Your task to perform on an android device: find photos in the google photos app Image 0: 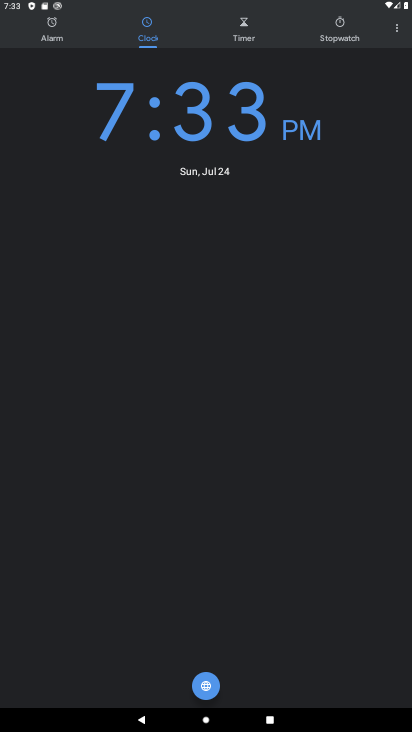
Step 0: press back button
Your task to perform on an android device: find photos in the google photos app Image 1: 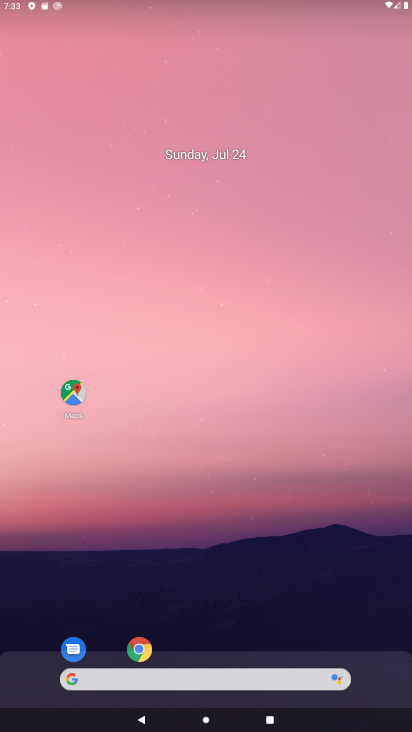
Step 1: drag from (241, 667) to (146, 148)
Your task to perform on an android device: find photos in the google photos app Image 2: 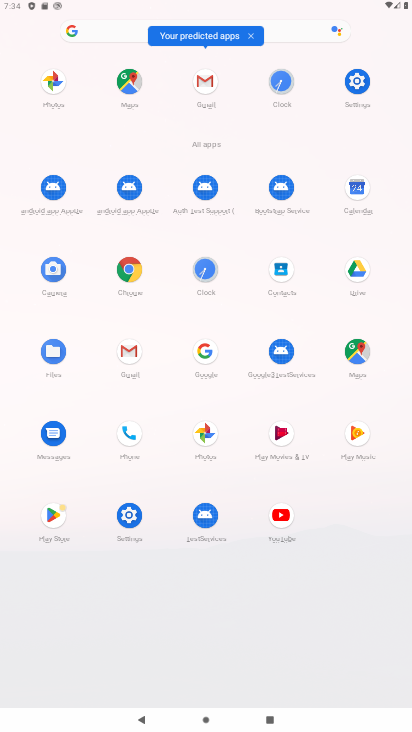
Step 2: click (206, 433)
Your task to perform on an android device: find photos in the google photos app Image 3: 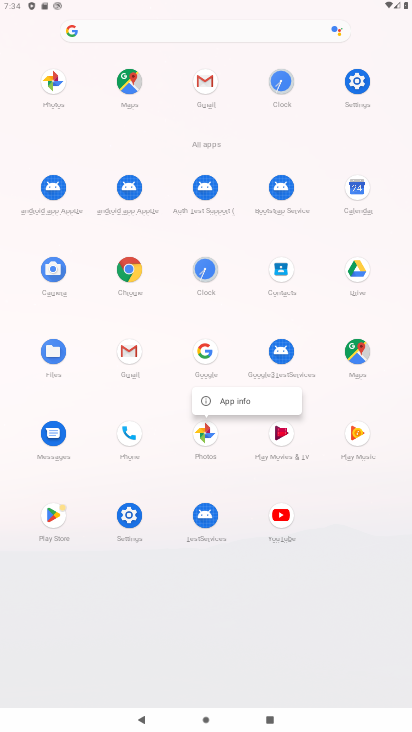
Step 3: click (205, 434)
Your task to perform on an android device: find photos in the google photos app Image 4: 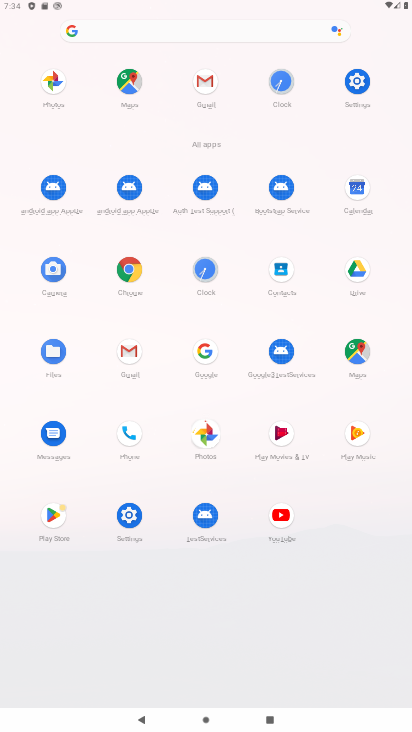
Step 4: click (203, 436)
Your task to perform on an android device: find photos in the google photos app Image 5: 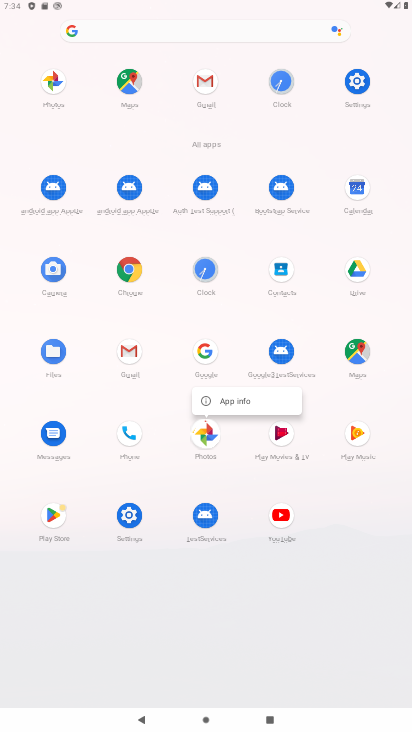
Step 5: click (200, 432)
Your task to perform on an android device: find photos in the google photos app Image 6: 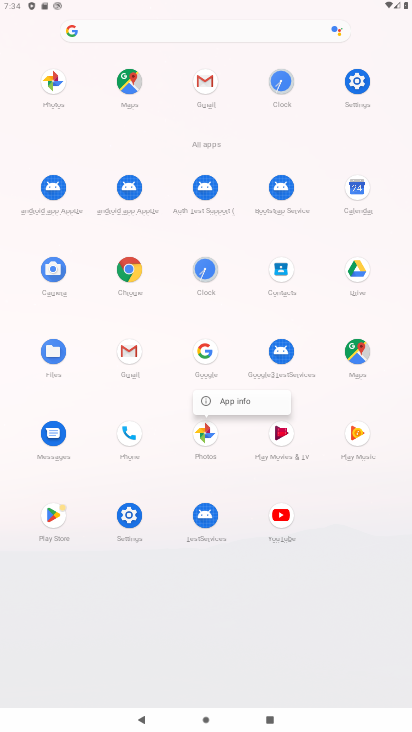
Step 6: click (197, 435)
Your task to perform on an android device: find photos in the google photos app Image 7: 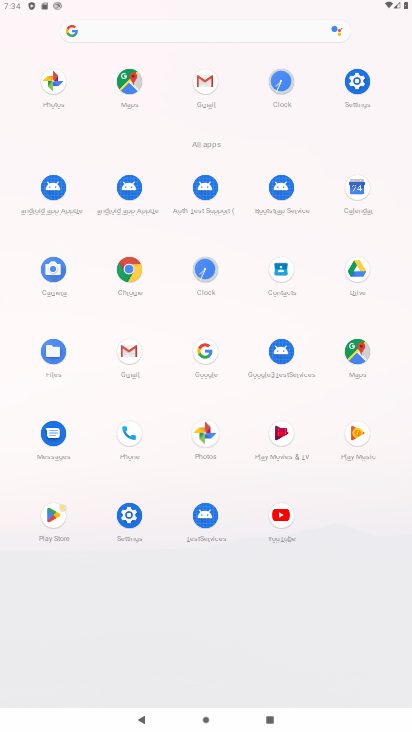
Step 7: click (198, 434)
Your task to perform on an android device: find photos in the google photos app Image 8: 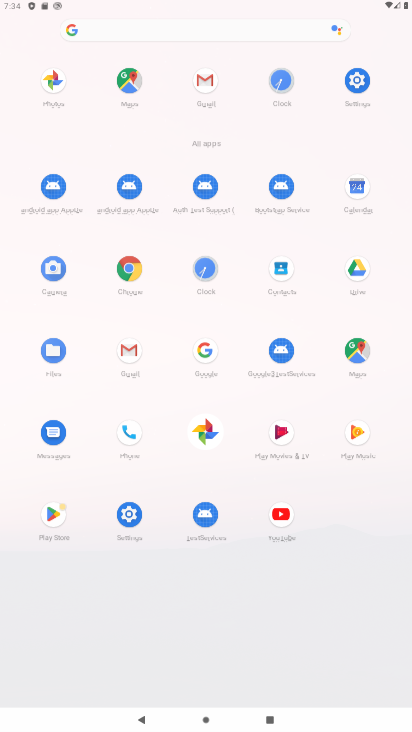
Step 8: click (196, 440)
Your task to perform on an android device: find photos in the google photos app Image 9: 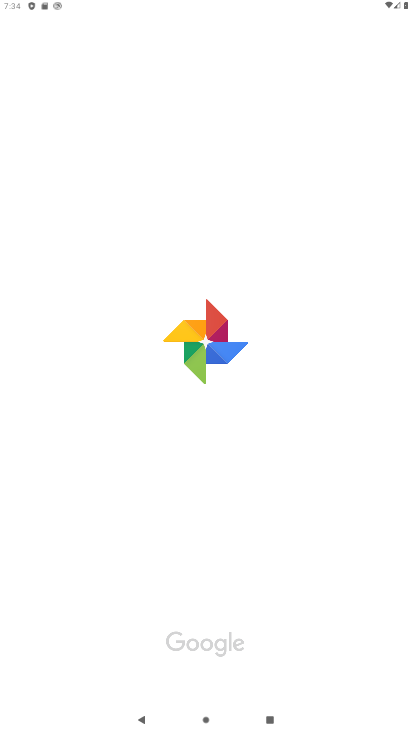
Step 9: click (195, 440)
Your task to perform on an android device: find photos in the google photos app Image 10: 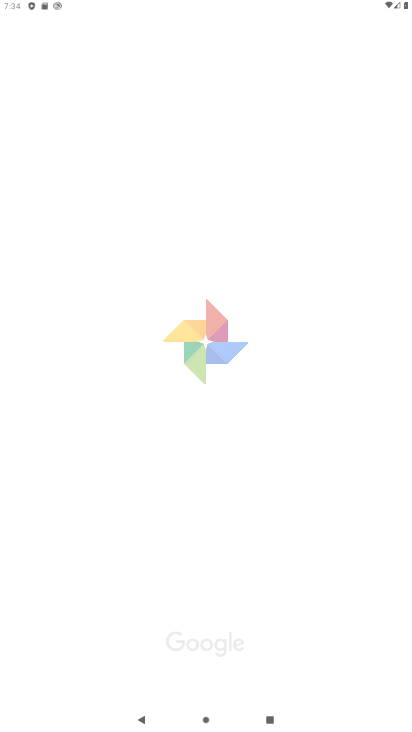
Step 10: click (197, 434)
Your task to perform on an android device: find photos in the google photos app Image 11: 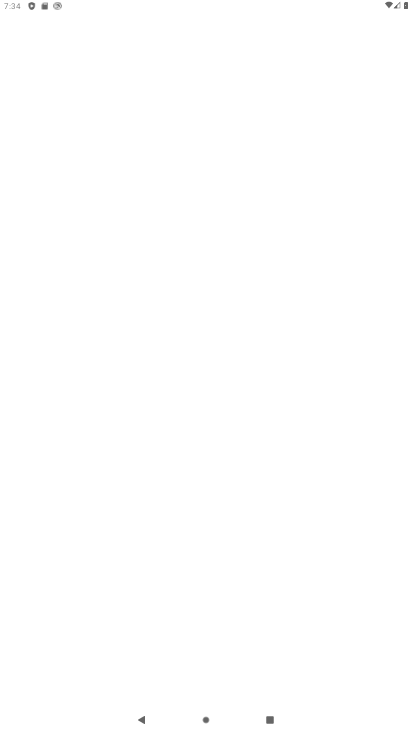
Step 11: click (207, 435)
Your task to perform on an android device: find photos in the google photos app Image 12: 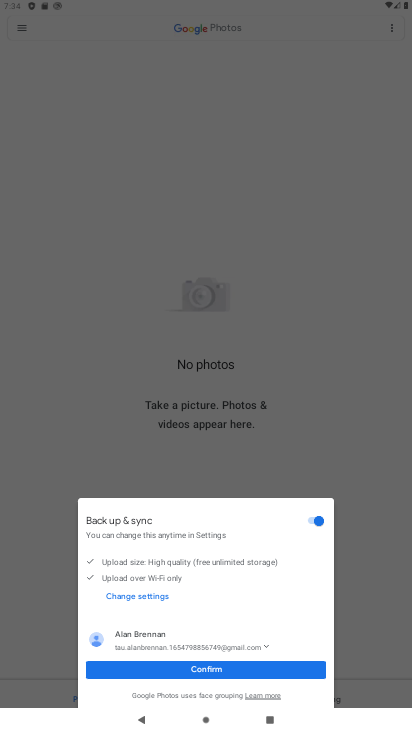
Step 12: click (224, 665)
Your task to perform on an android device: find photos in the google photos app Image 13: 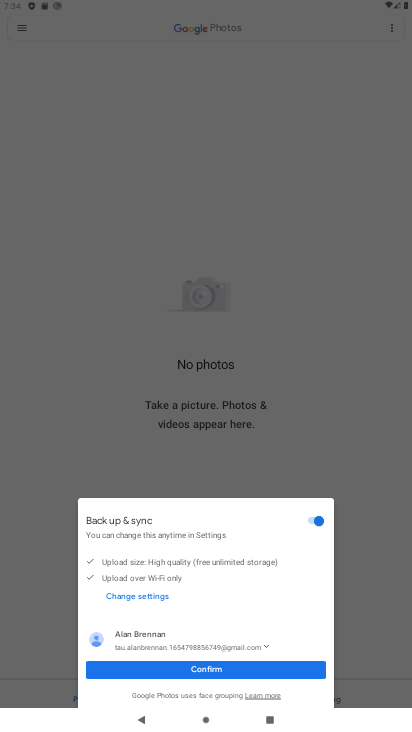
Step 13: task complete